Your task to perform on an android device: make emails show in primary in the gmail app Image 0: 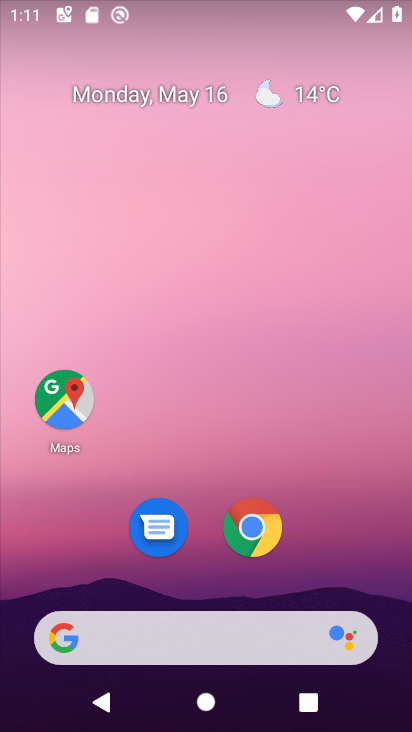
Step 0: drag from (195, 526) to (212, 72)
Your task to perform on an android device: make emails show in primary in the gmail app Image 1: 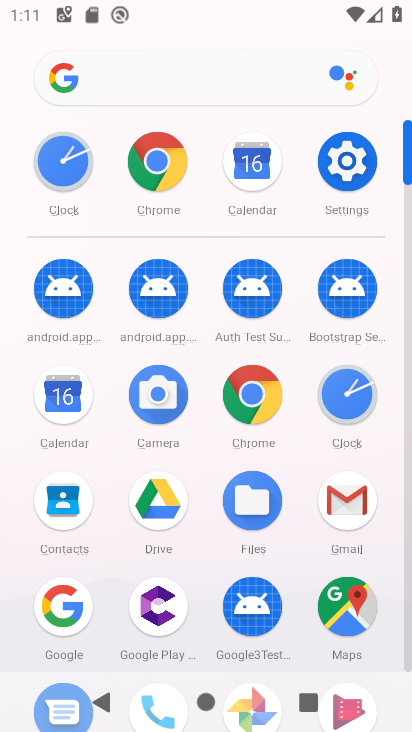
Step 1: click (347, 508)
Your task to perform on an android device: make emails show in primary in the gmail app Image 2: 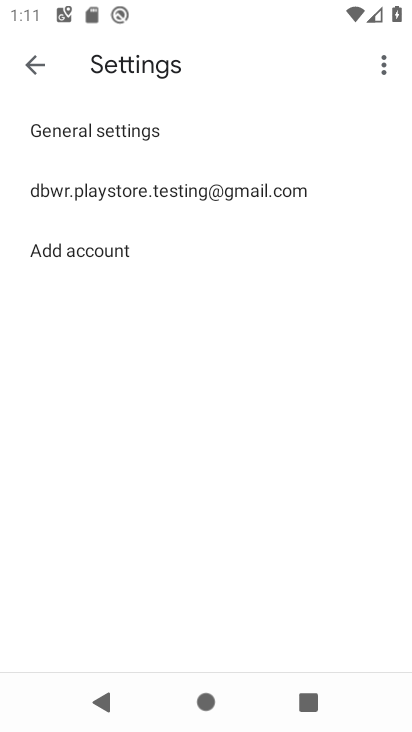
Step 2: click (120, 182)
Your task to perform on an android device: make emails show in primary in the gmail app Image 3: 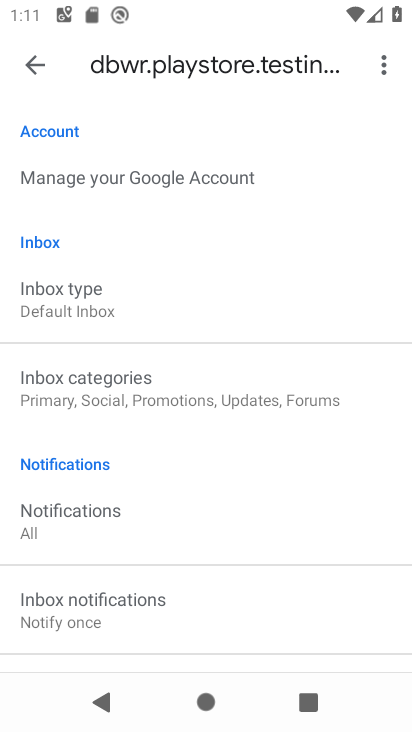
Step 3: click (130, 404)
Your task to perform on an android device: make emails show in primary in the gmail app Image 4: 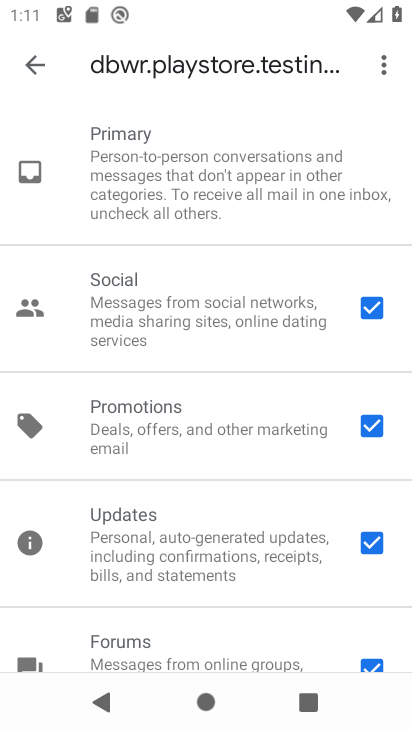
Step 4: click (367, 300)
Your task to perform on an android device: make emails show in primary in the gmail app Image 5: 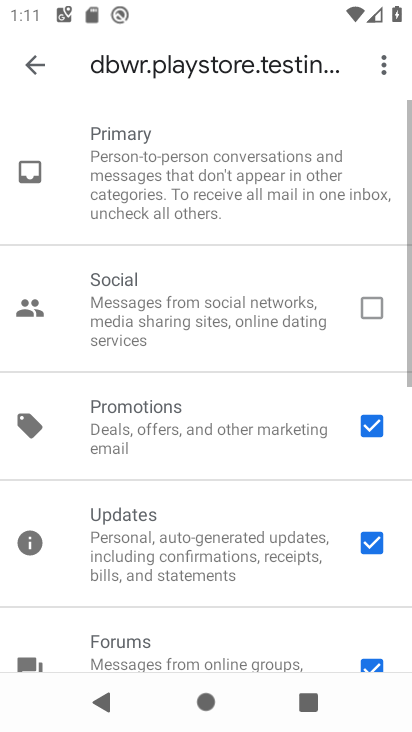
Step 5: click (368, 434)
Your task to perform on an android device: make emails show in primary in the gmail app Image 6: 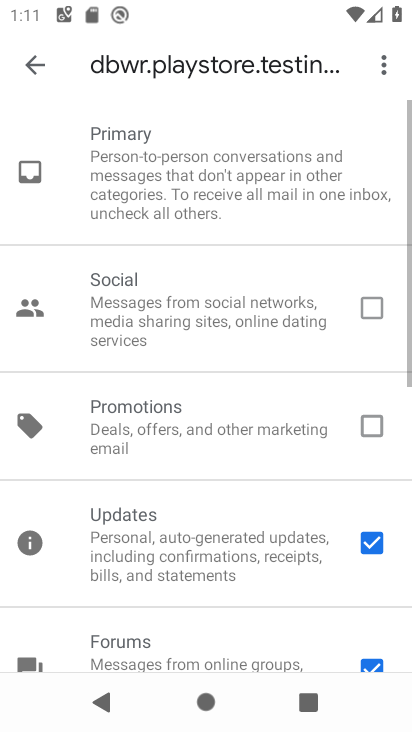
Step 6: click (376, 552)
Your task to perform on an android device: make emails show in primary in the gmail app Image 7: 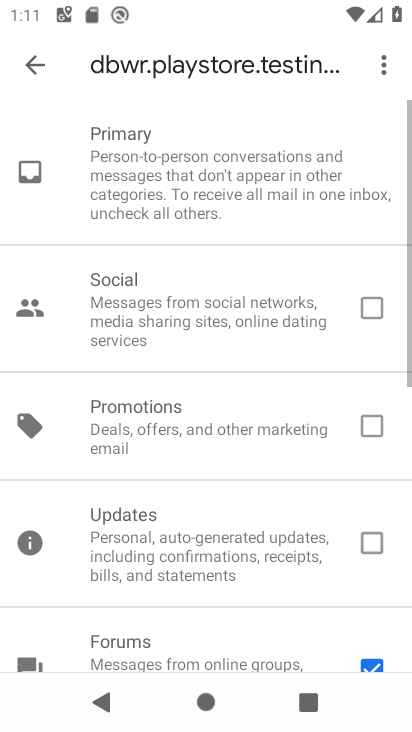
Step 7: drag from (306, 584) to (302, 392)
Your task to perform on an android device: make emails show in primary in the gmail app Image 8: 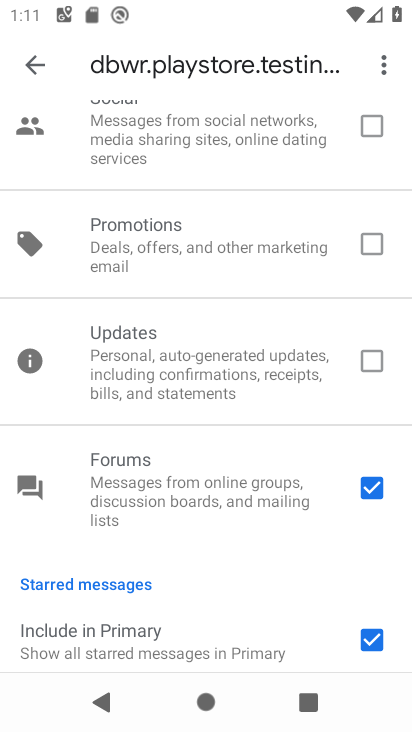
Step 8: click (374, 480)
Your task to perform on an android device: make emails show in primary in the gmail app Image 9: 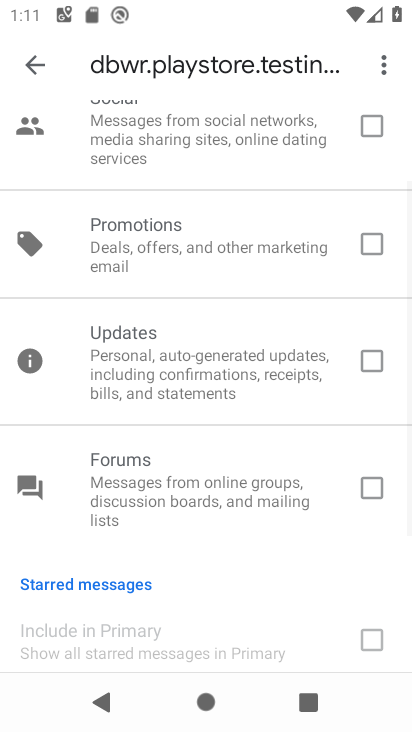
Step 9: task complete